Your task to perform on an android device: Search for dell xps on newegg.com, select the first entry, and add it to the cart. Image 0: 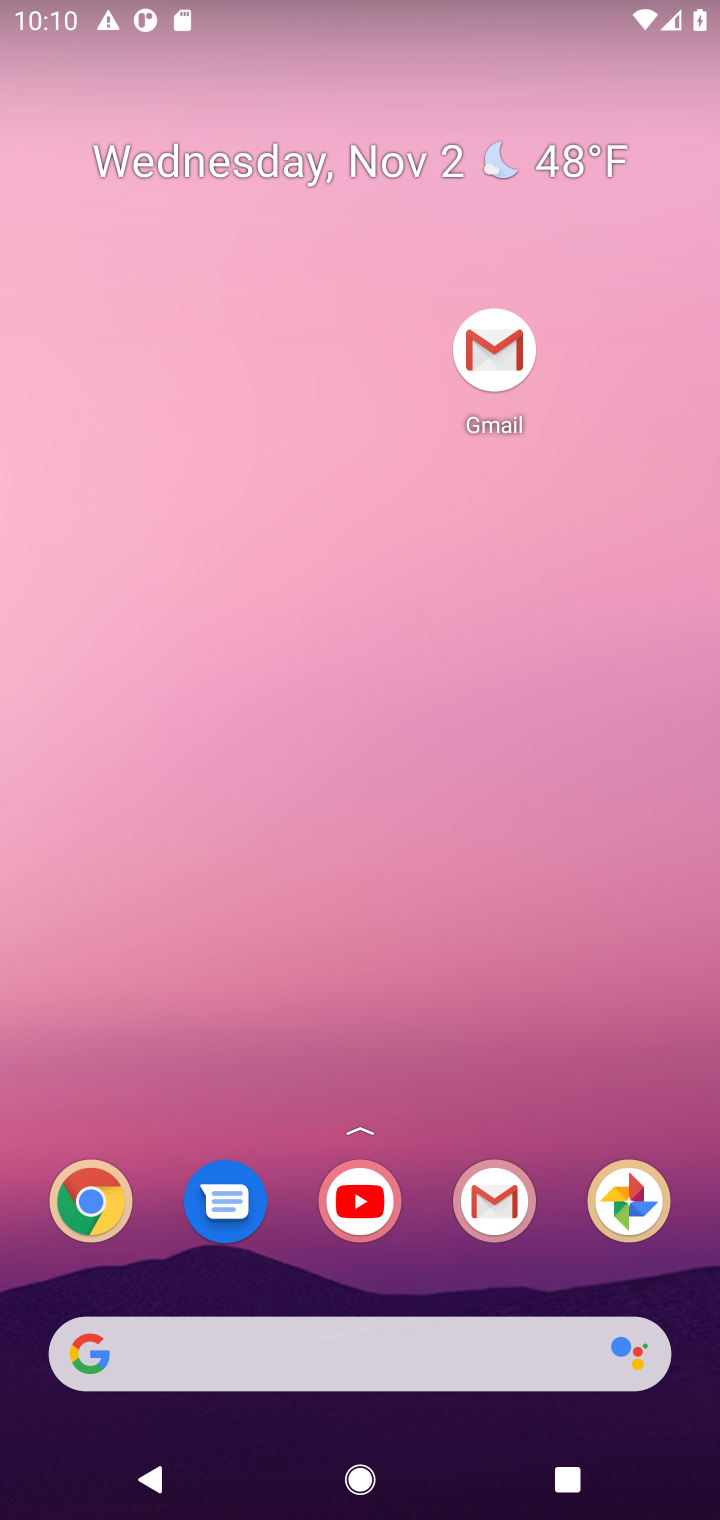
Step 0: drag from (461, 1288) to (447, 207)
Your task to perform on an android device: Search for dell xps on newegg.com, select the first entry, and add it to the cart. Image 1: 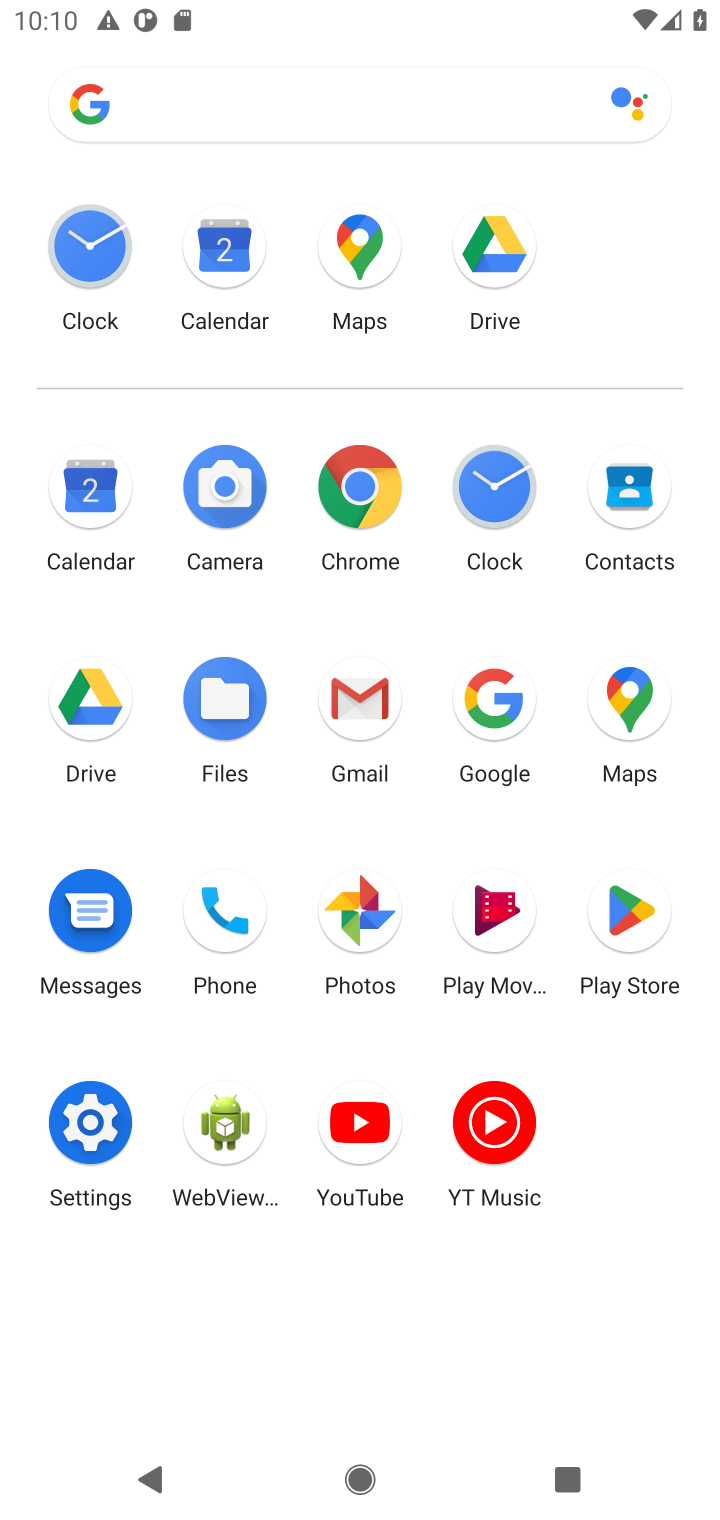
Step 1: click (375, 508)
Your task to perform on an android device: Search for dell xps on newegg.com, select the first entry, and add it to the cart. Image 2: 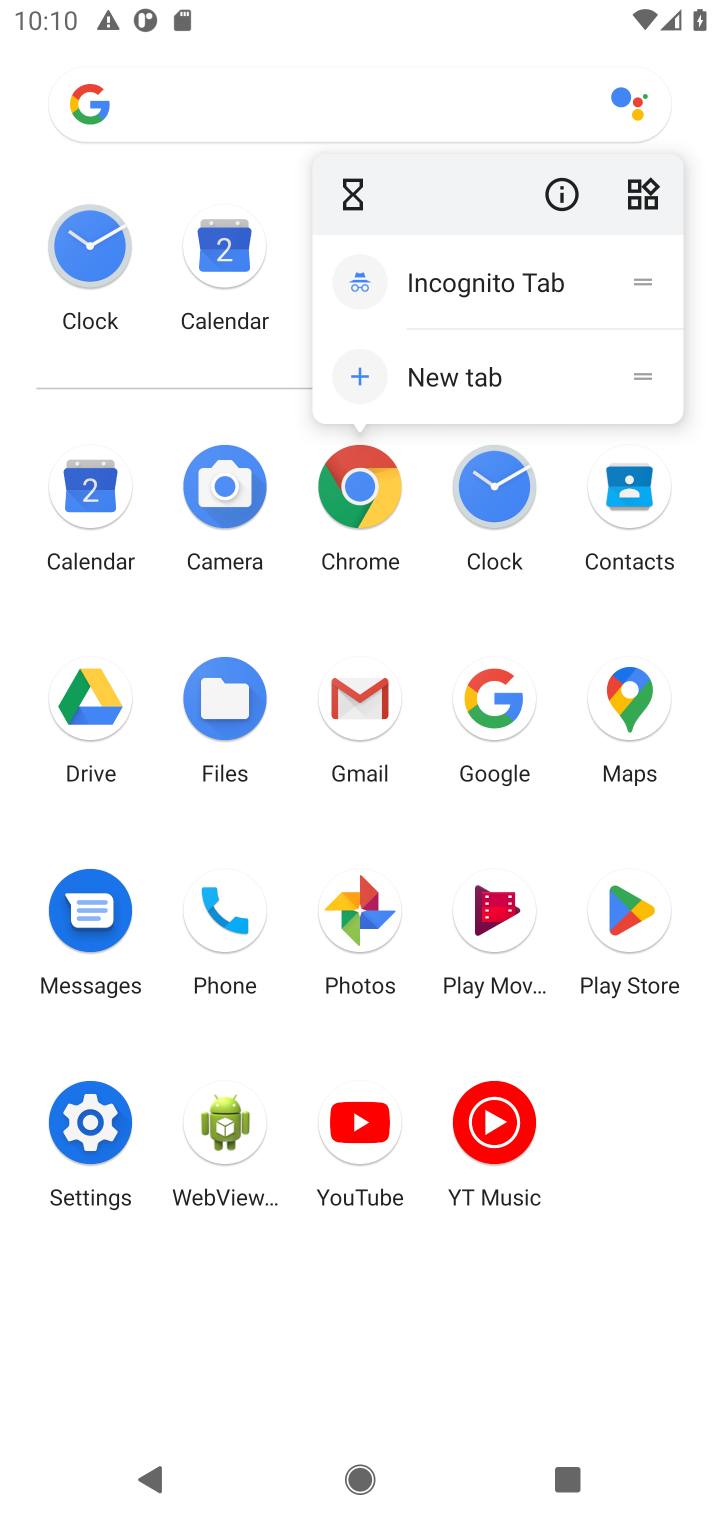
Step 2: click (352, 492)
Your task to perform on an android device: Search for dell xps on newegg.com, select the first entry, and add it to the cart. Image 3: 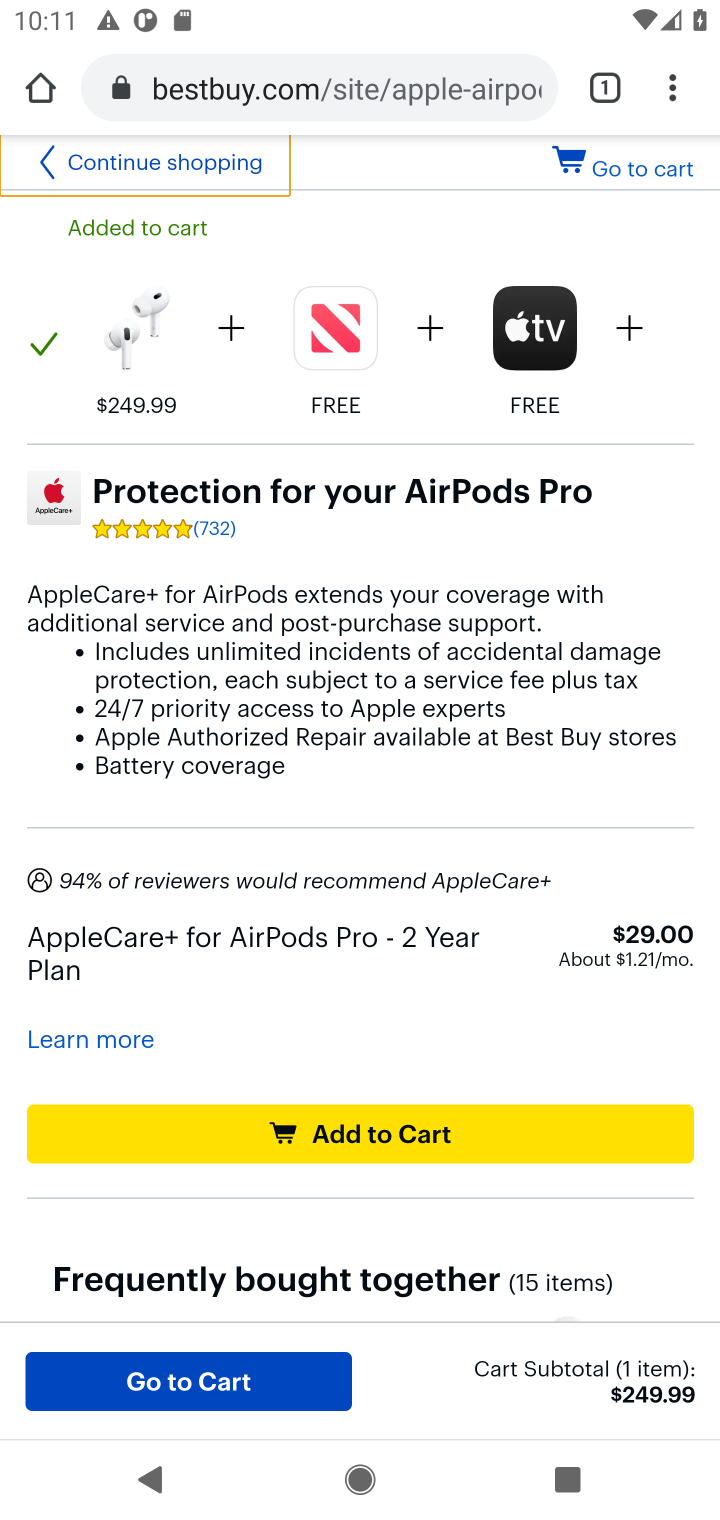
Step 3: click (371, 83)
Your task to perform on an android device: Search for dell xps on newegg.com, select the first entry, and add it to the cart. Image 4: 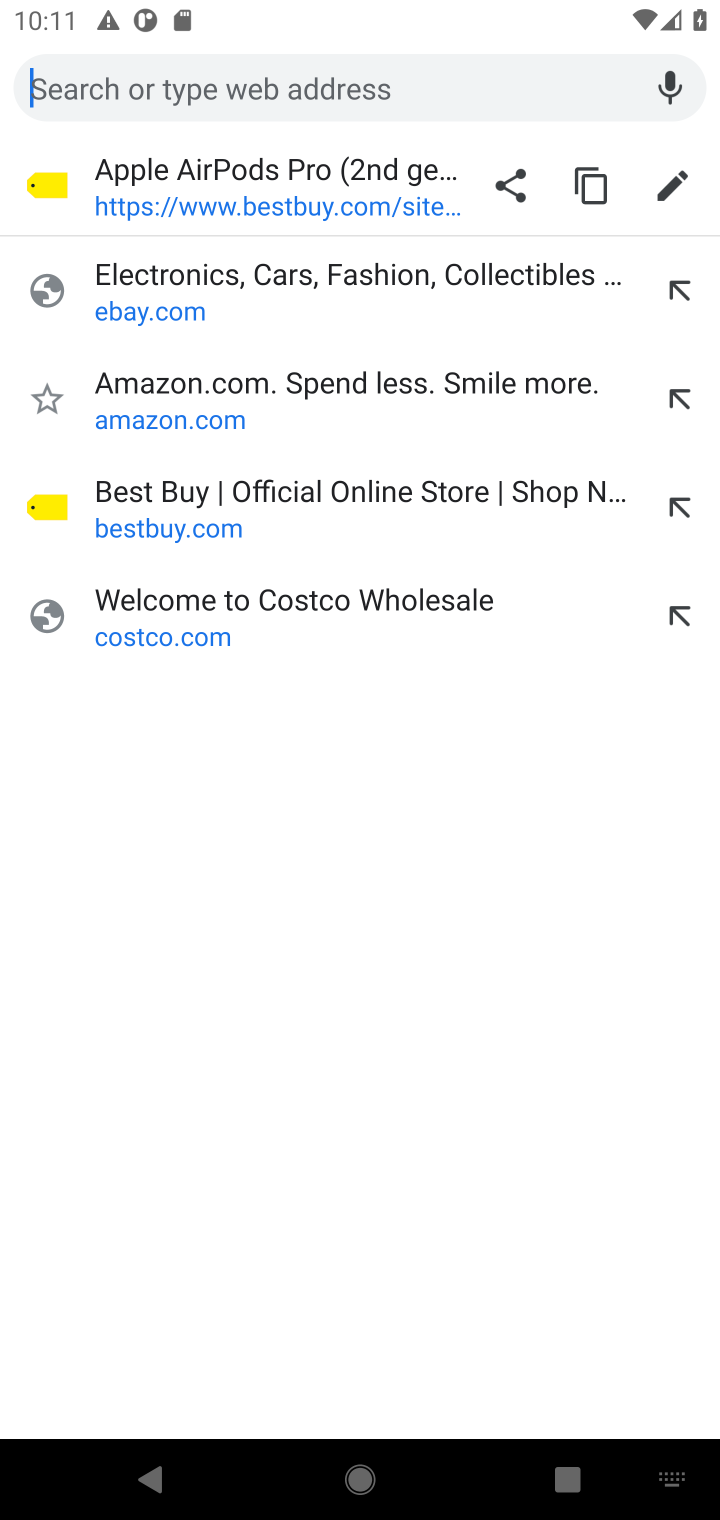
Step 4: type "Newegg.com"
Your task to perform on an android device: Search for dell xps on newegg.com, select the first entry, and add it to the cart. Image 5: 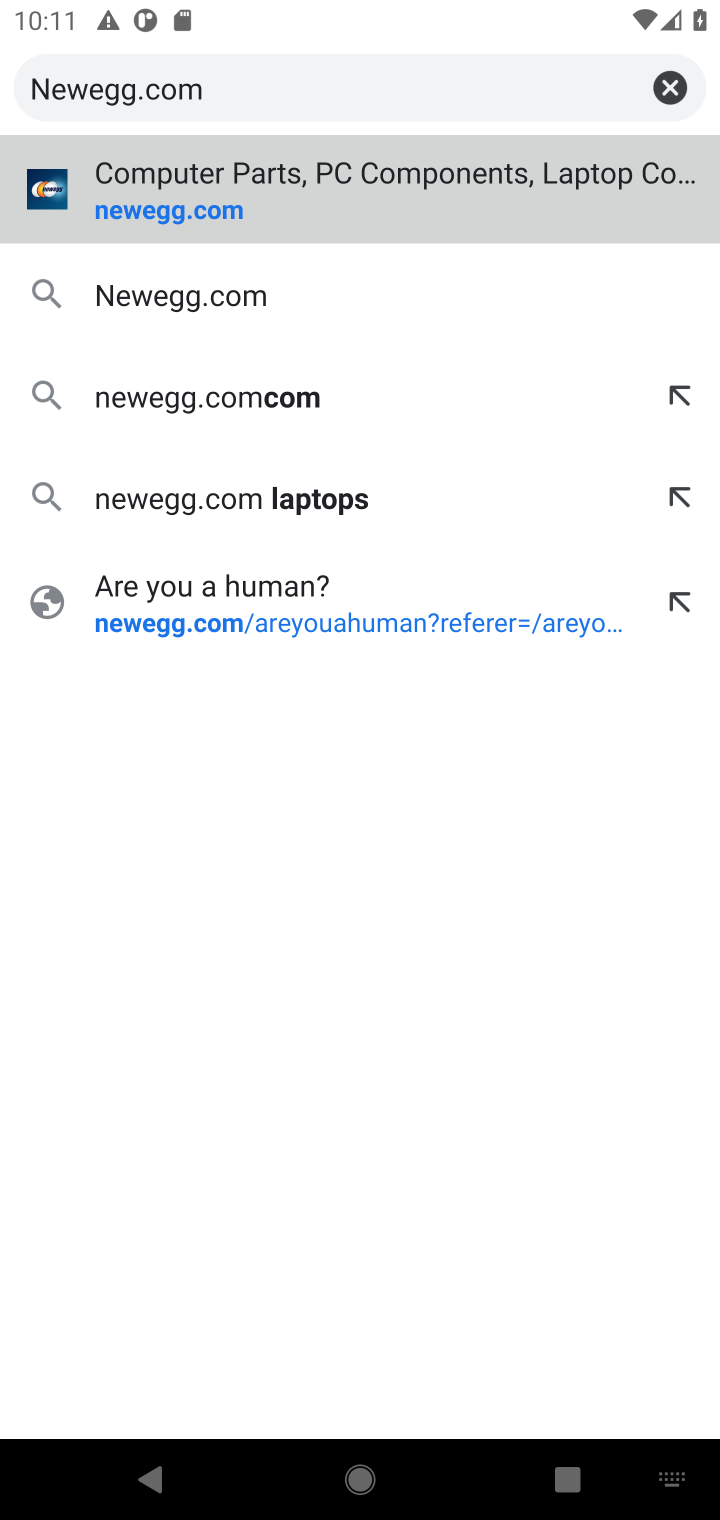
Step 5: press enter
Your task to perform on an android device: Search for dell xps on newegg.com, select the first entry, and add it to the cart. Image 6: 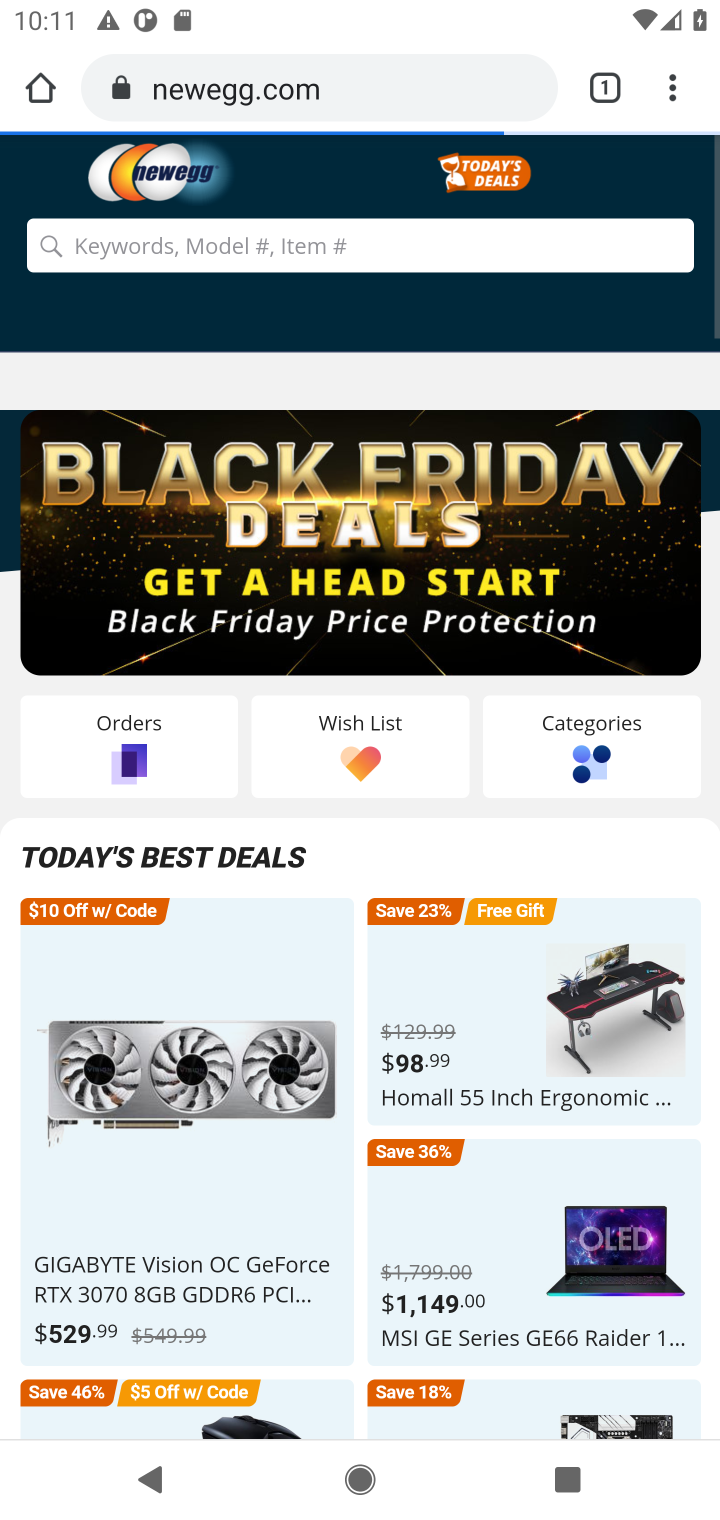
Step 6: press enter
Your task to perform on an android device: Search for dell xps on newegg.com, select the first entry, and add it to the cart. Image 7: 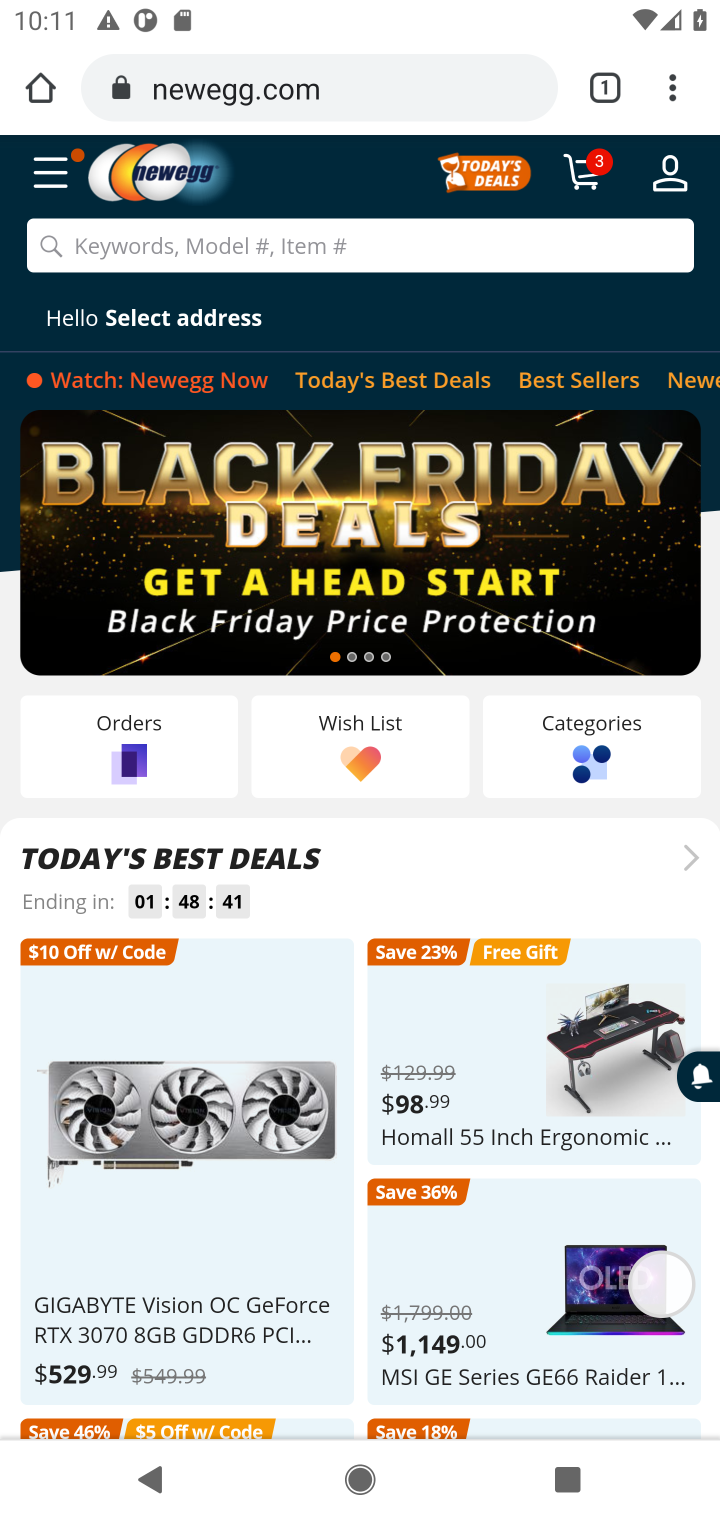
Step 7: click (357, 242)
Your task to perform on an android device: Search for dell xps on newegg.com, select the first entry, and add it to the cart. Image 8: 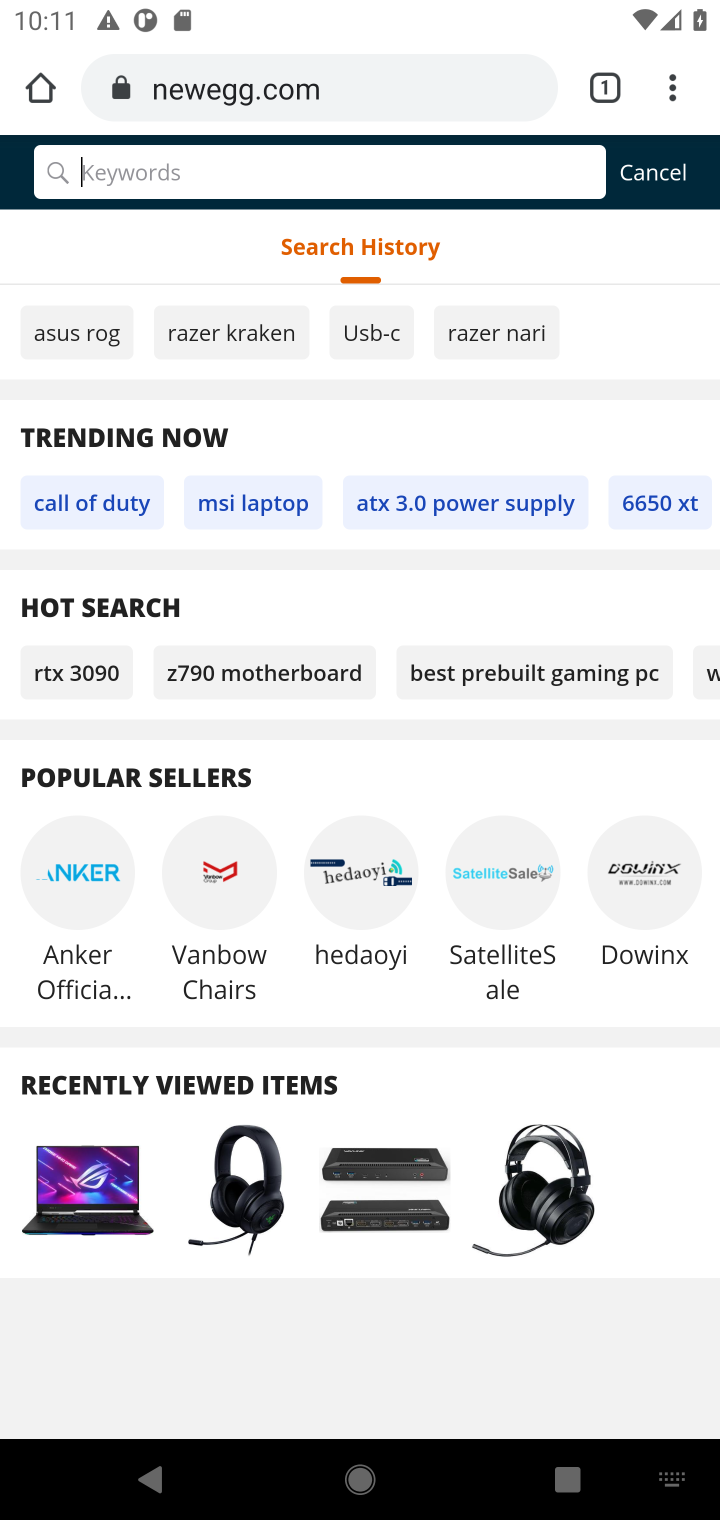
Step 8: type "dell xps"
Your task to perform on an android device: Search for dell xps on newegg.com, select the first entry, and add it to the cart. Image 9: 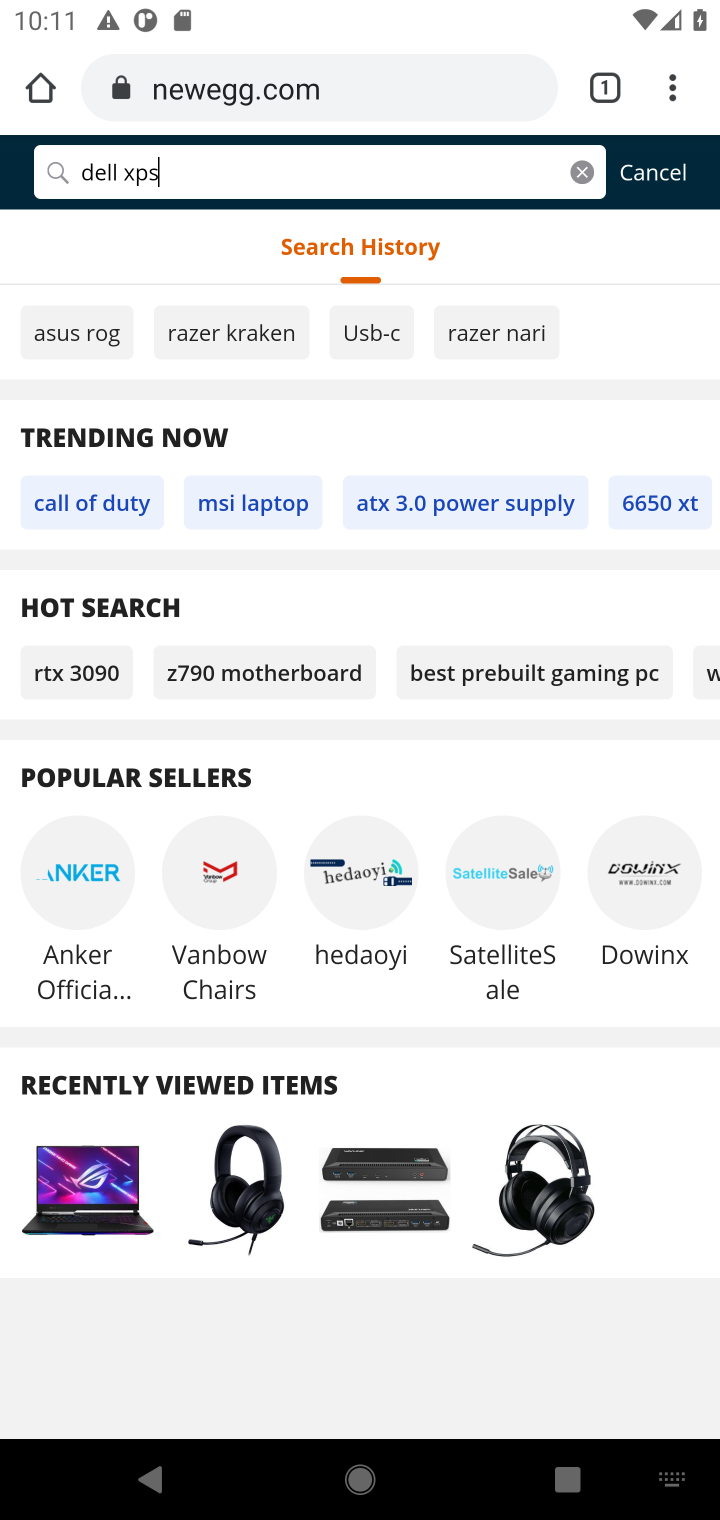
Step 9: press enter
Your task to perform on an android device: Search for dell xps on newegg.com, select the first entry, and add it to the cart. Image 10: 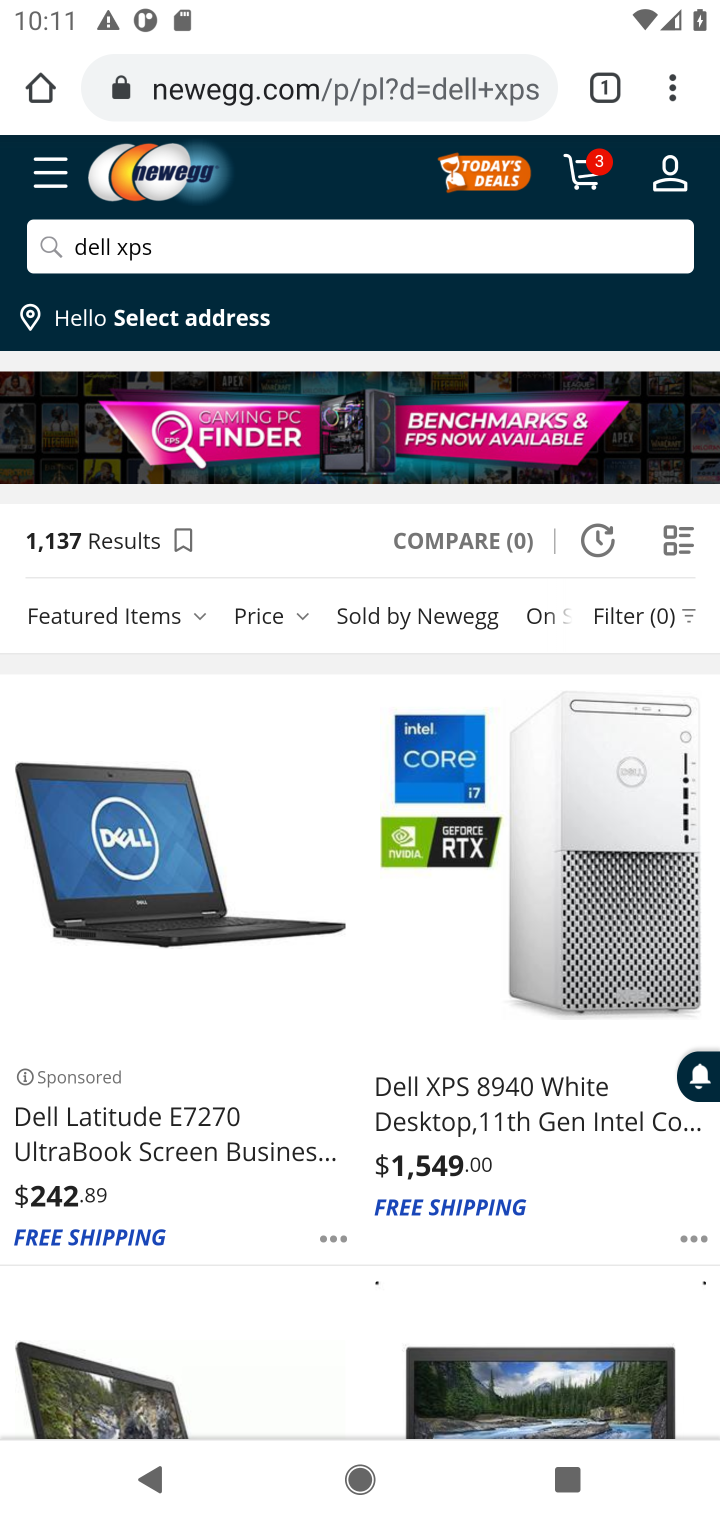
Step 10: click (552, 1111)
Your task to perform on an android device: Search for dell xps on newegg.com, select the first entry, and add it to the cart. Image 11: 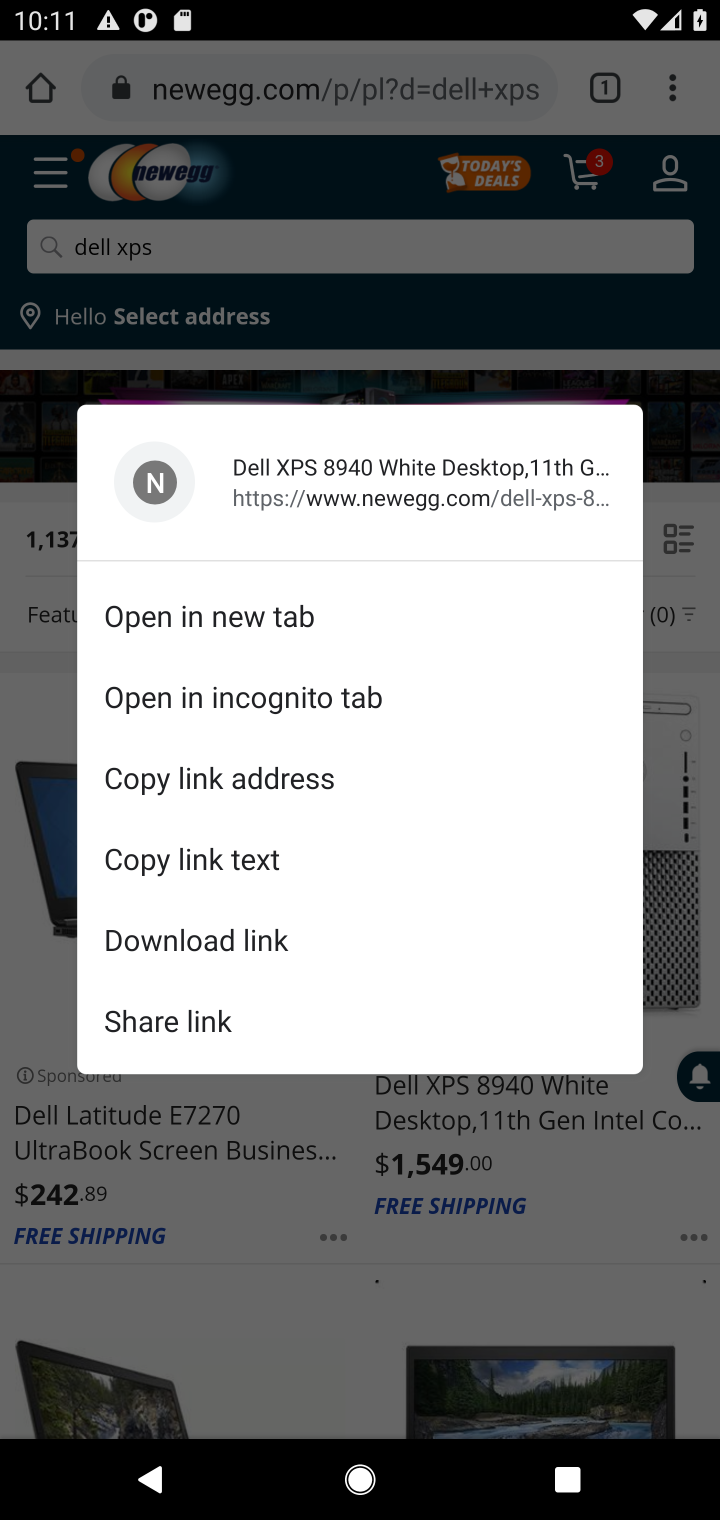
Step 11: click (546, 1150)
Your task to perform on an android device: Search for dell xps on newegg.com, select the first entry, and add it to the cart. Image 12: 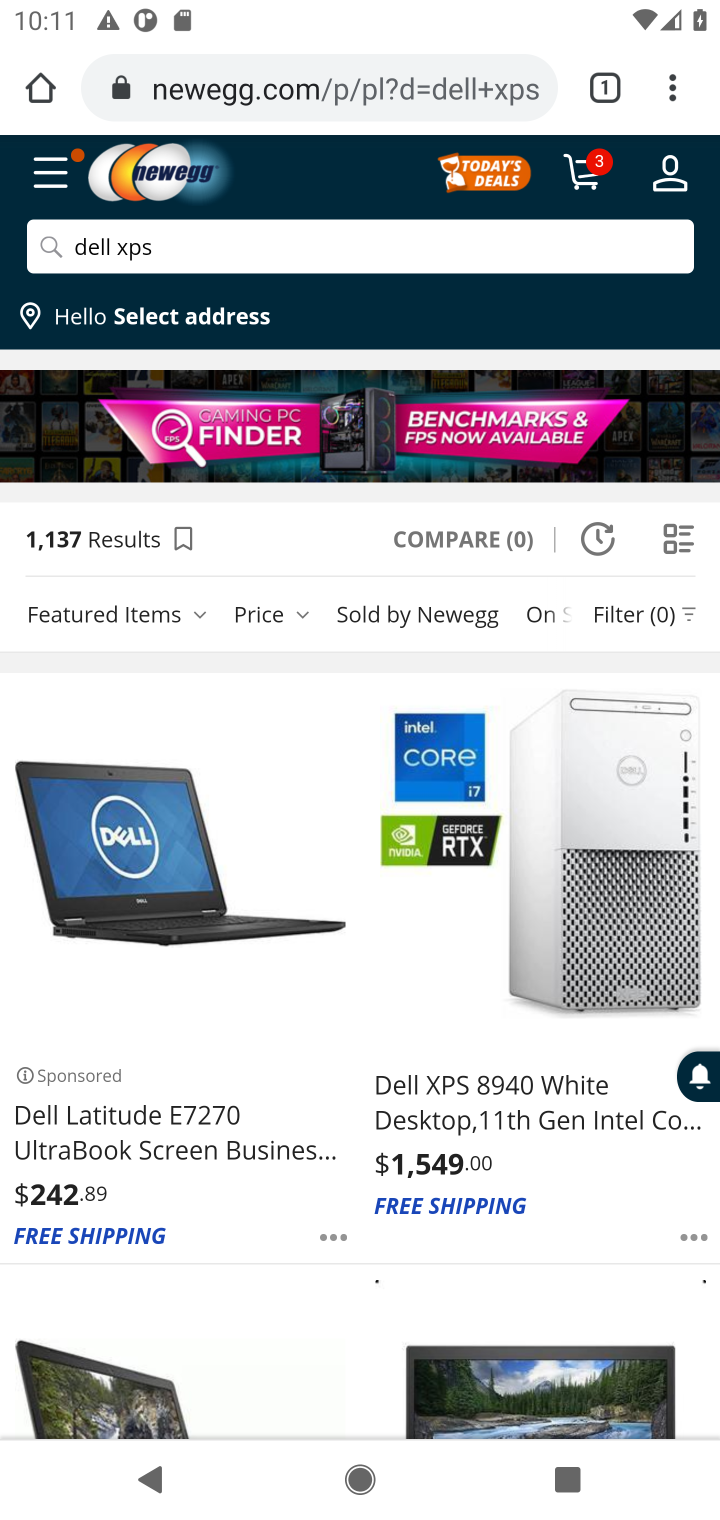
Step 12: click (530, 1118)
Your task to perform on an android device: Search for dell xps on newegg.com, select the first entry, and add it to the cart. Image 13: 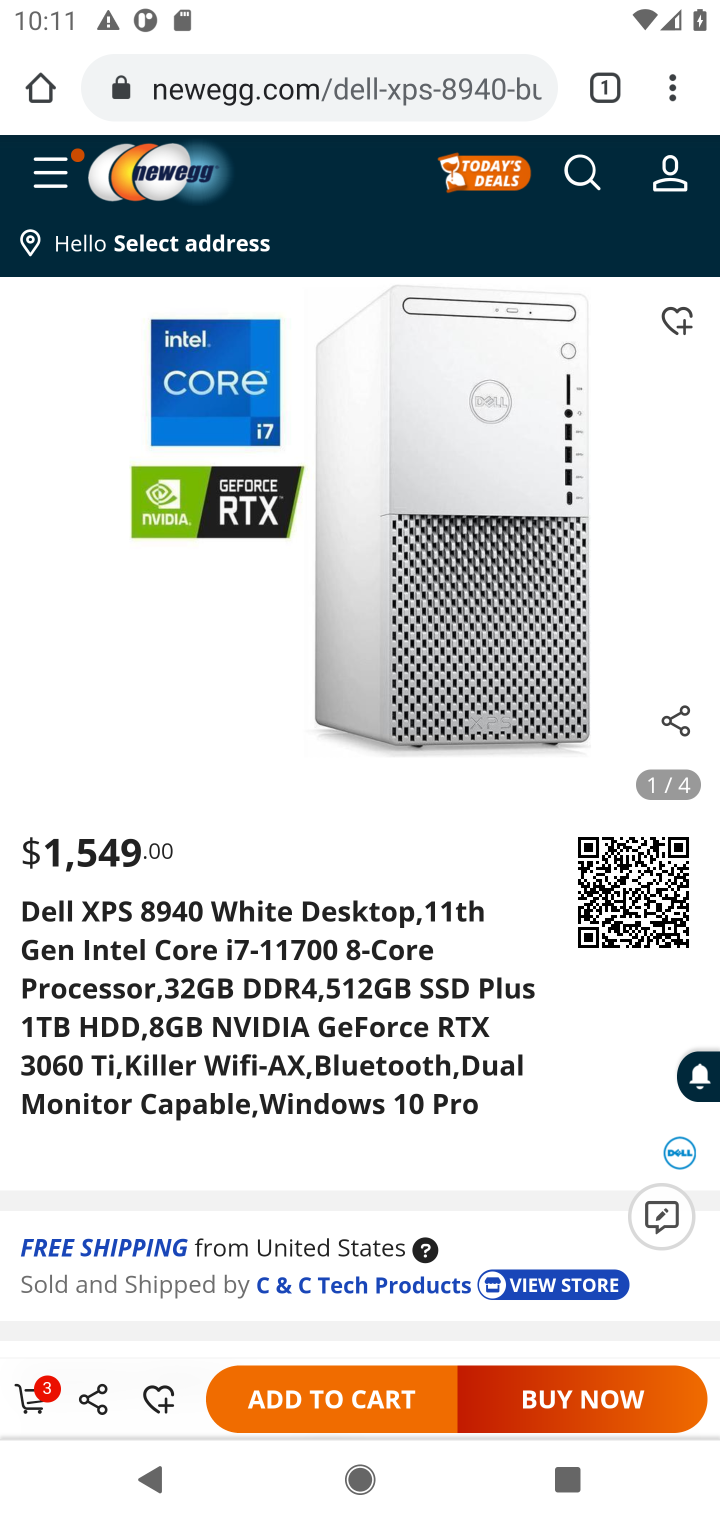
Step 13: click (322, 1409)
Your task to perform on an android device: Search for dell xps on newegg.com, select the first entry, and add it to the cart. Image 14: 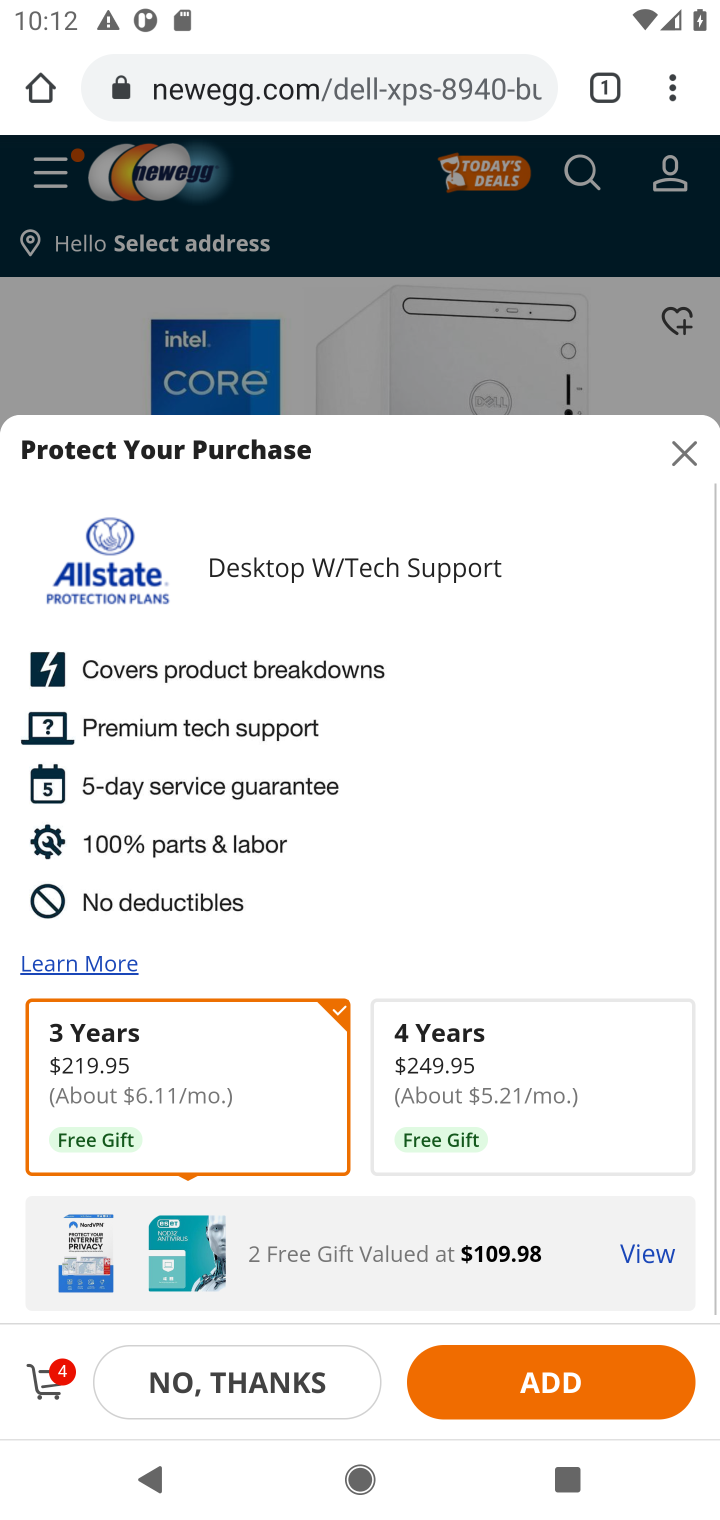
Step 14: task complete